Your task to perform on an android device: open app "LinkedIn" Image 0: 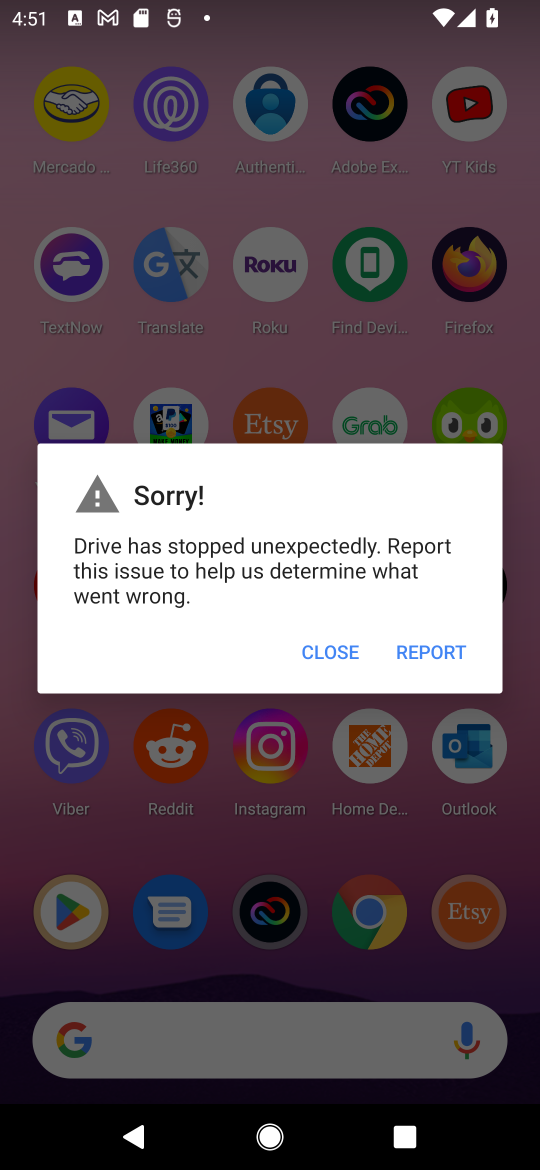
Step 0: press home button
Your task to perform on an android device: open app "LinkedIn" Image 1: 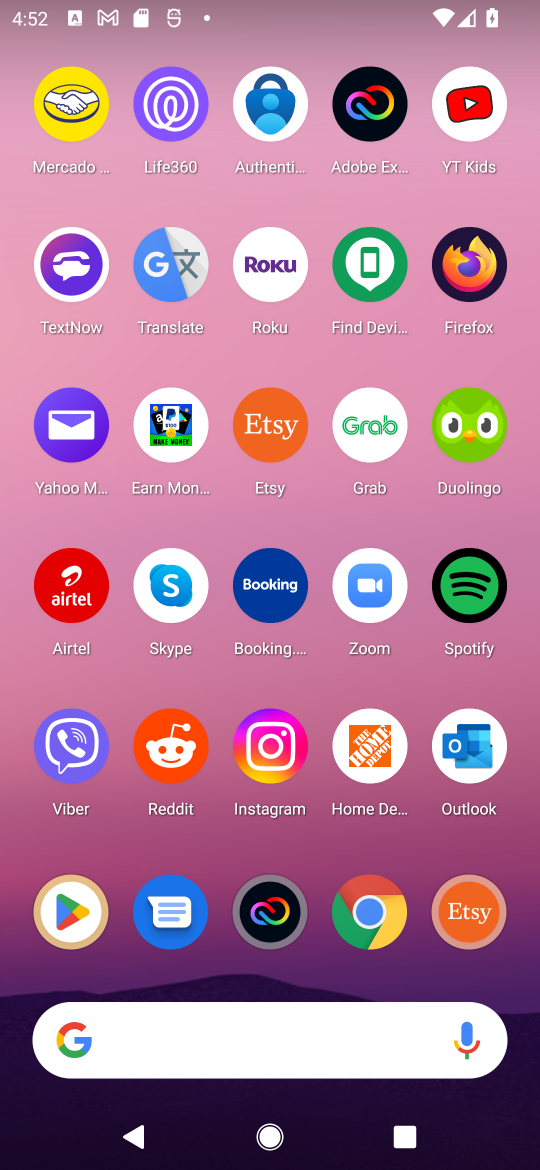
Step 1: click (62, 921)
Your task to perform on an android device: open app "LinkedIn" Image 2: 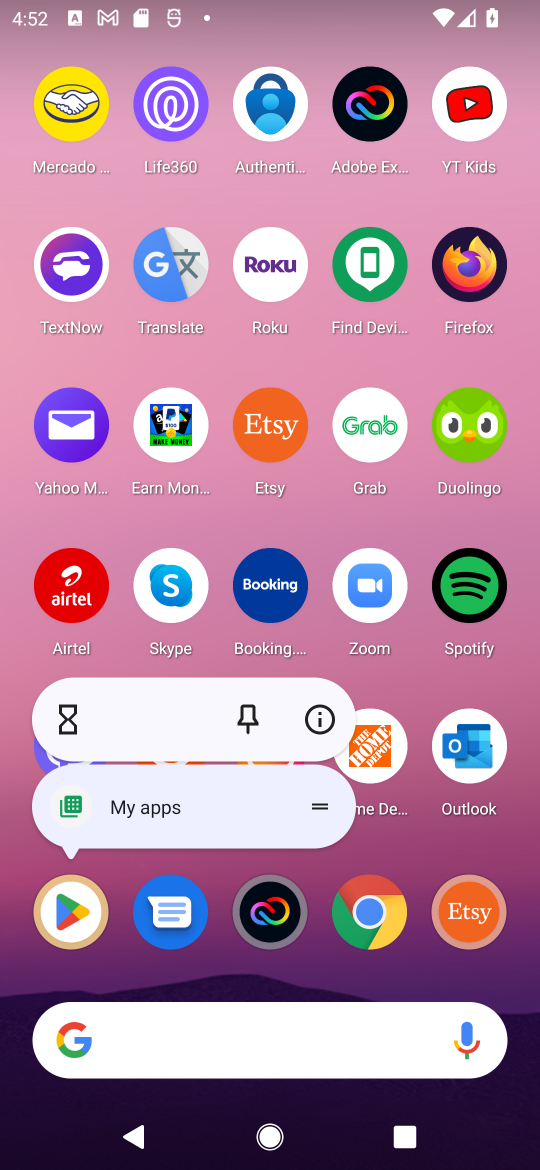
Step 2: click (62, 920)
Your task to perform on an android device: open app "LinkedIn" Image 3: 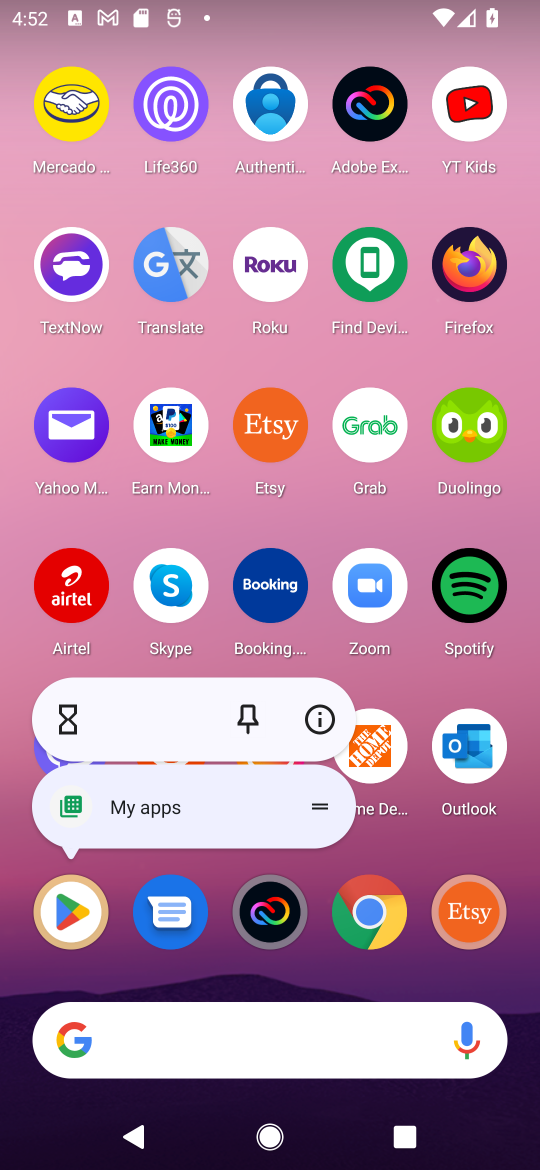
Step 3: click (62, 920)
Your task to perform on an android device: open app "LinkedIn" Image 4: 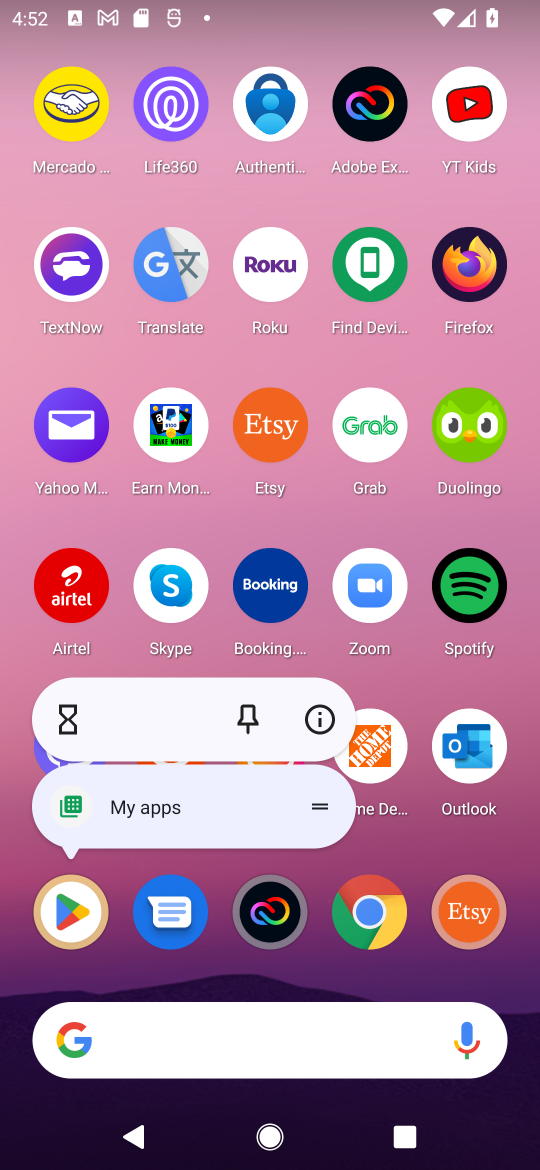
Step 4: click (62, 920)
Your task to perform on an android device: open app "LinkedIn" Image 5: 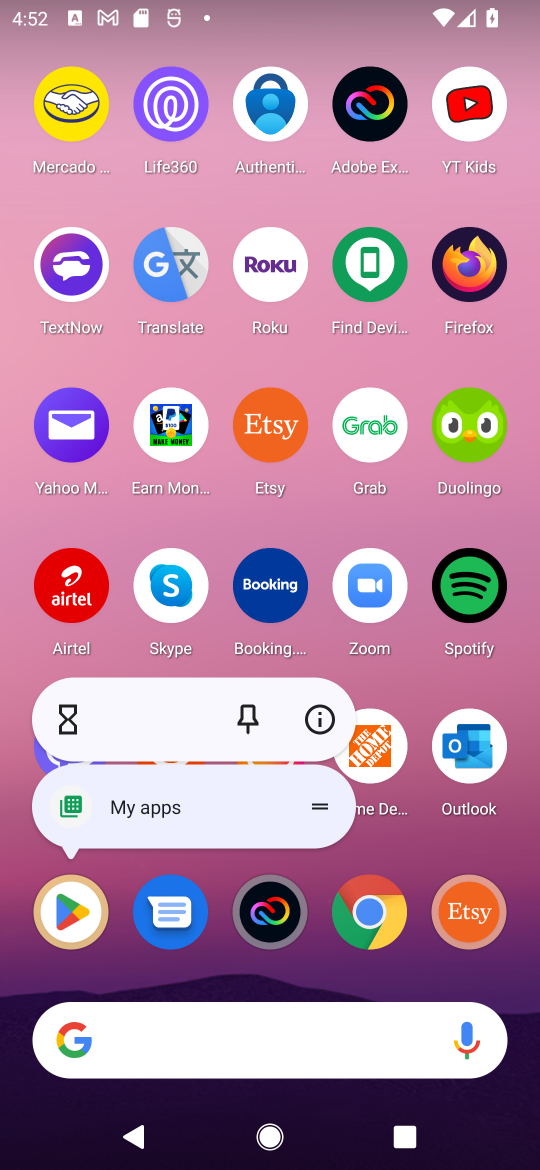
Step 5: click (62, 920)
Your task to perform on an android device: open app "LinkedIn" Image 6: 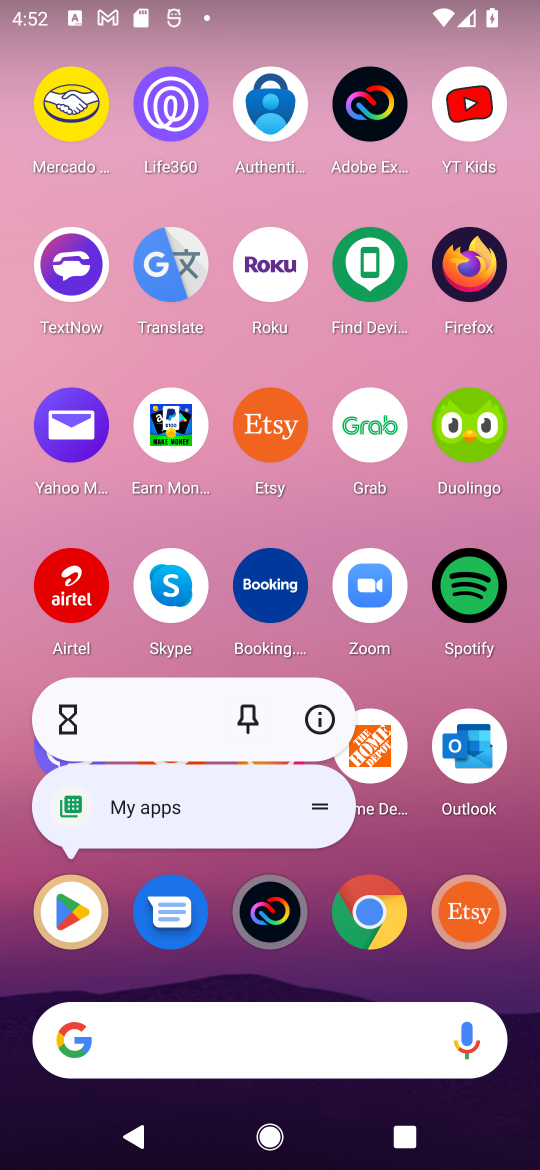
Step 6: click (62, 920)
Your task to perform on an android device: open app "LinkedIn" Image 7: 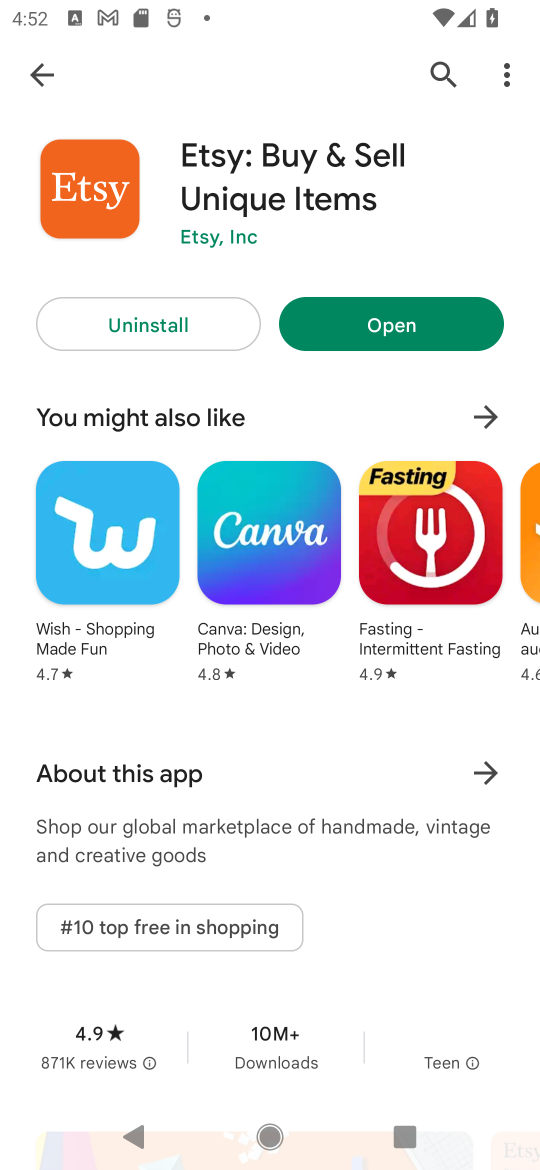
Step 7: click (445, 70)
Your task to perform on an android device: open app "LinkedIn" Image 8: 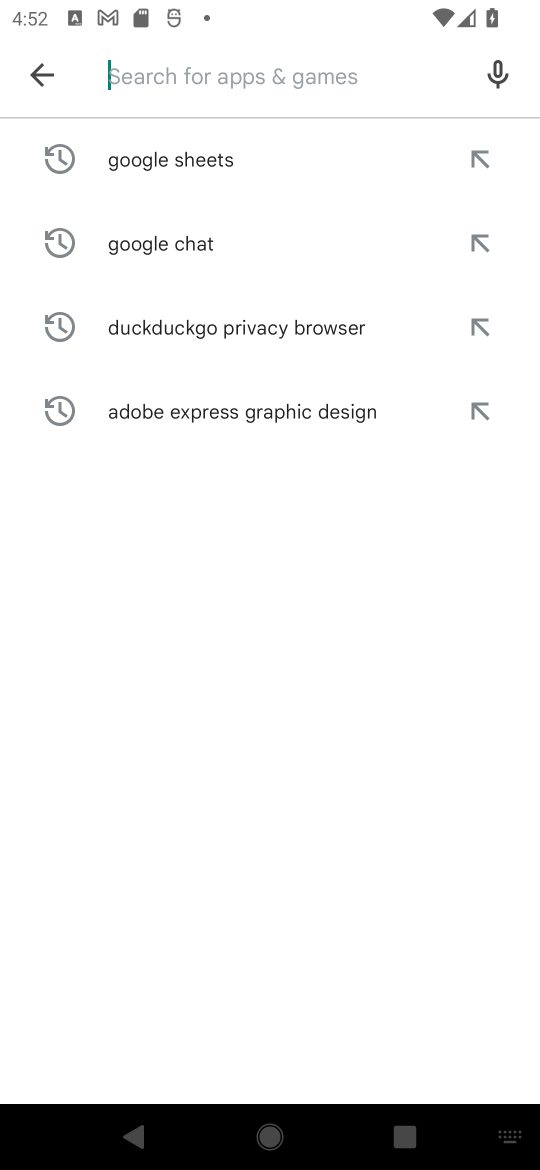
Step 8: type "LinkedIn"
Your task to perform on an android device: open app "LinkedIn" Image 9: 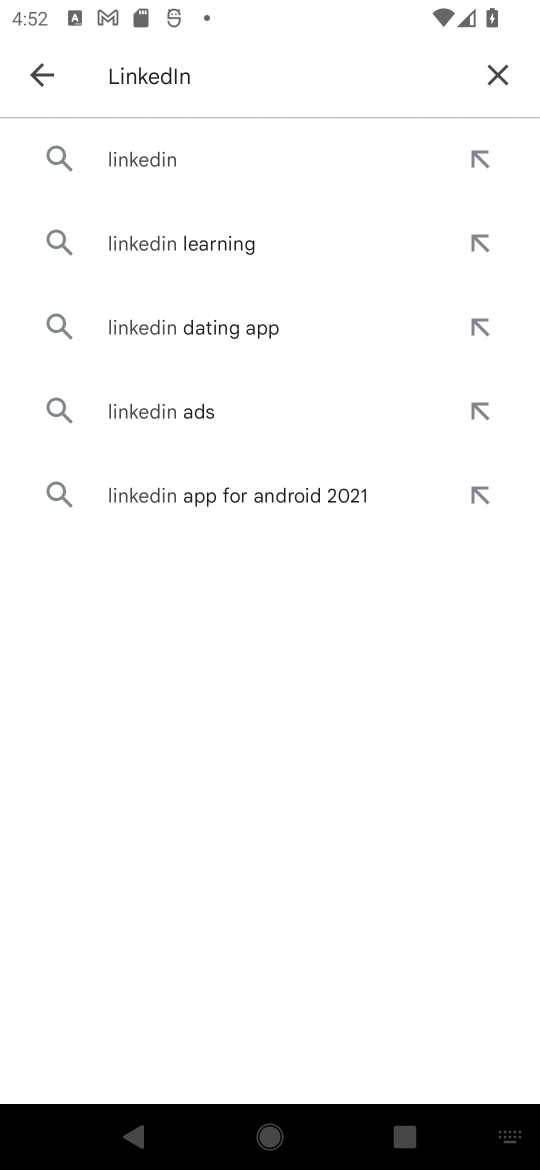
Step 9: click (123, 169)
Your task to perform on an android device: open app "LinkedIn" Image 10: 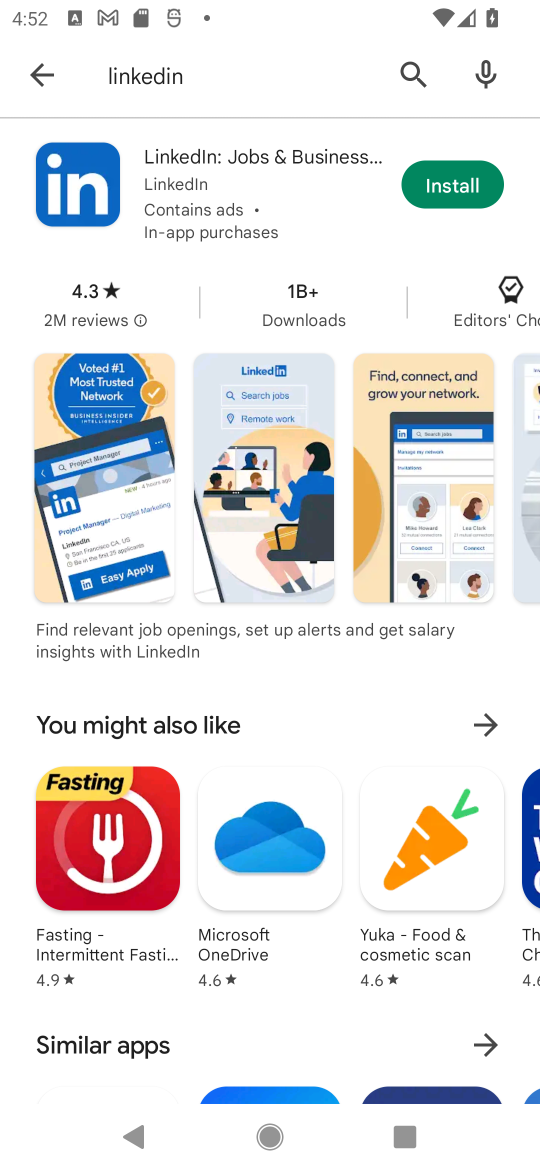
Step 10: task complete